Your task to perform on an android device: Clear the cart on walmart.com. Search for "asus rog" on walmart.com, select the first entry, and add it to the cart. Image 0: 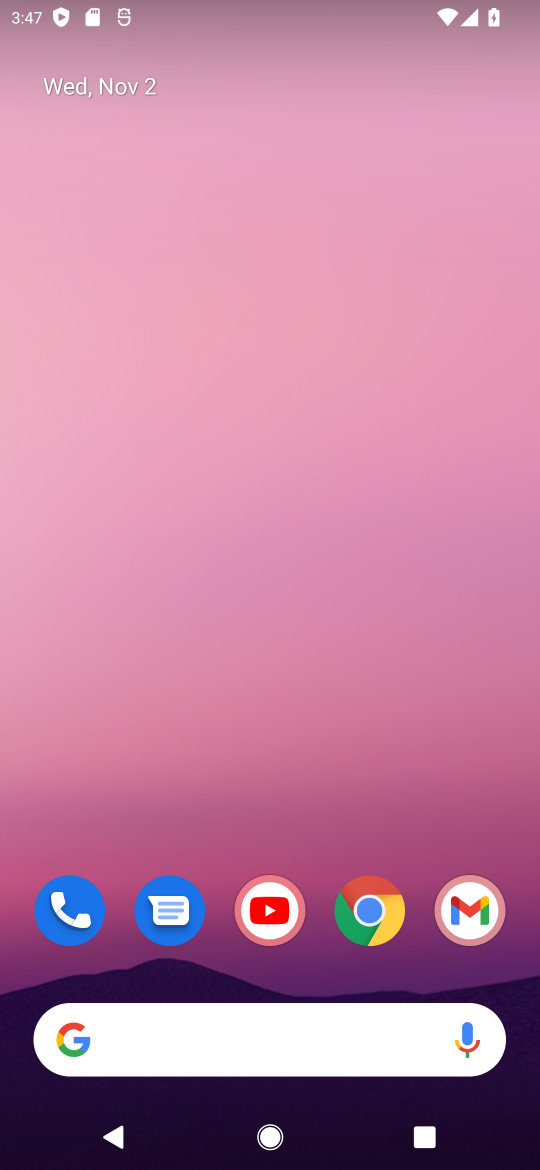
Step 0: click (361, 925)
Your task to perform on an android device: Clear the cart on walmart.com. Search for "asus rog" on walmart.com, select the first entry, and add it to the cart. Image 1: 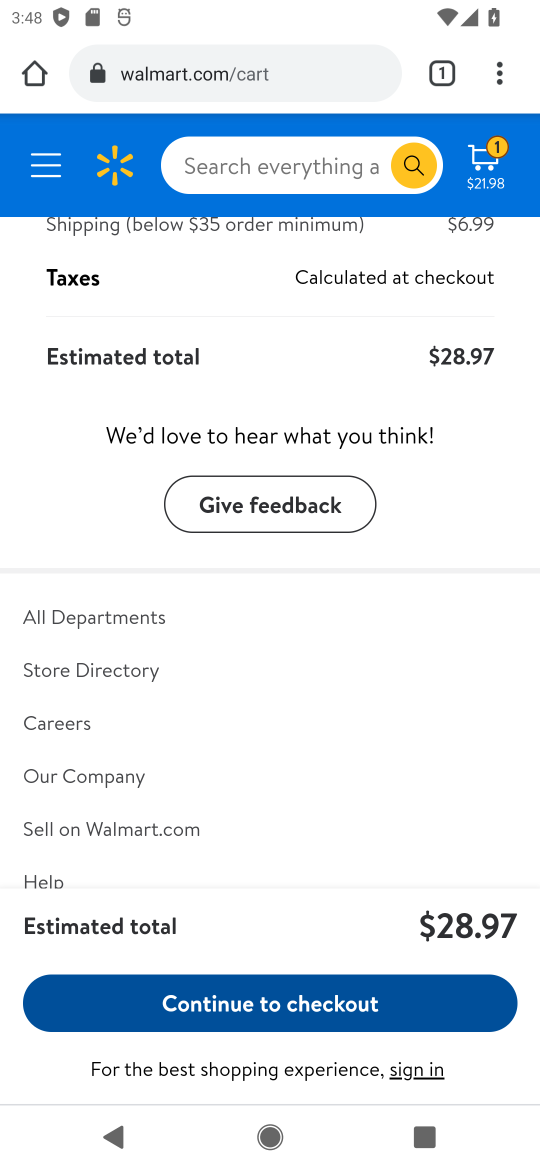
Step 1: click (312, 159)
Your task to perform on an android device: Clear the cart on walmart.com. Search for "asus rog" on walmart.com, select the first entry, and add it to the cart. Image 2: 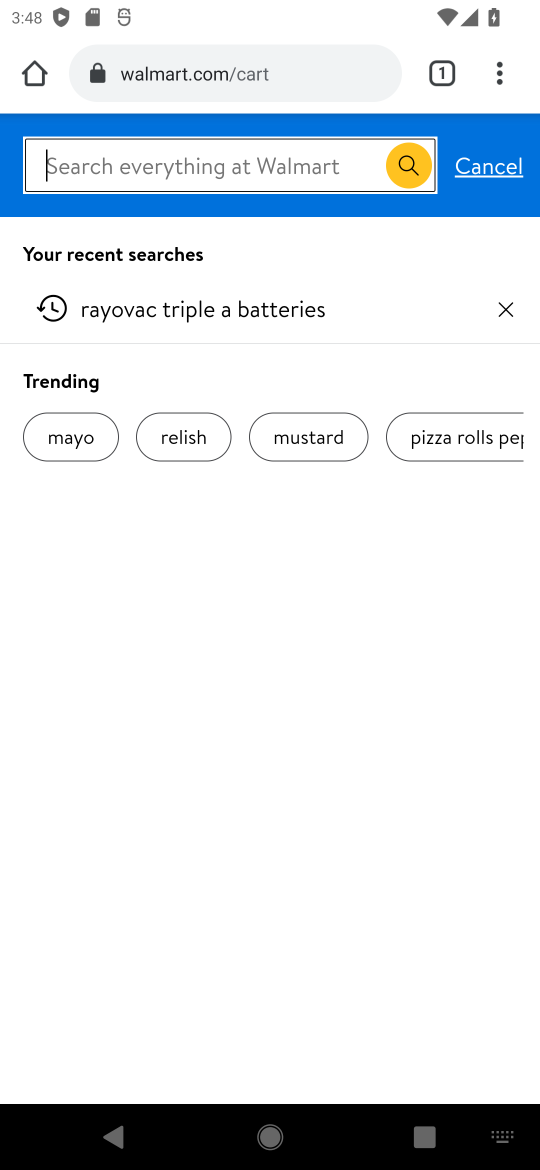
Step 2: type "asus rog"
Your task to perform on an android device: Clear the cart on walmart.com. Search for "asus rog" on walmart.com, select the first entry, and add it to the cart. Image 3: 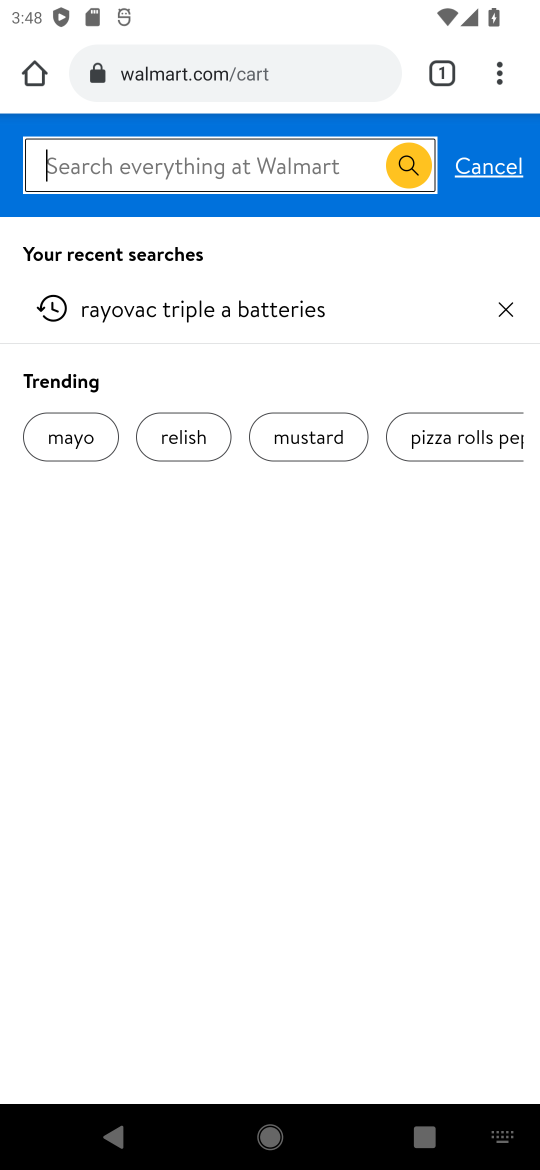
Step 3: type ""
Your task to perform on an android device: Clear the cart on walmart.com. Search for "asus rog" on walmart.com, select the first entry, and add it to the cart. Image 4: 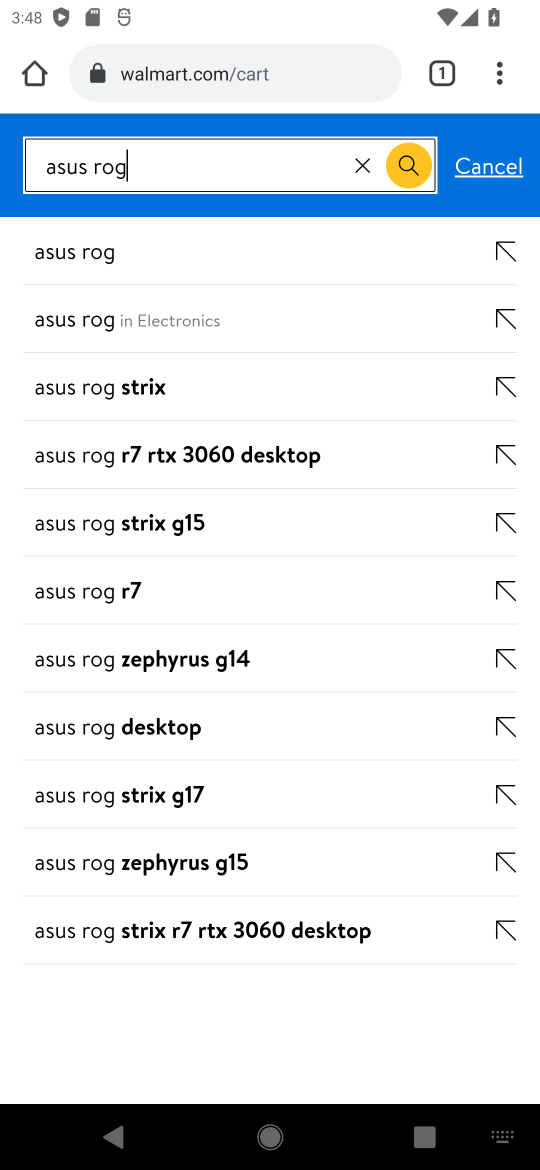
Step 4: click (105, 269)
Your task to perform on an android device: Clear the cart on walmart.com. Search for "asus rog" on walmart.com, select the first entry, and add it to the cart. Image 5: 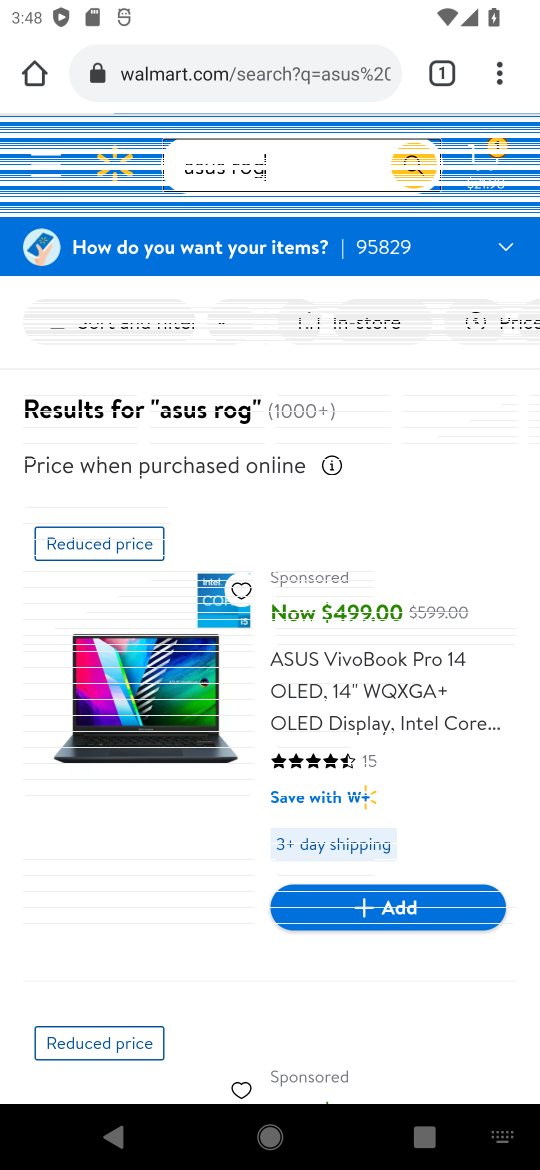
Step 5: click (409, 168)
Your task to perform on an android device: Clear the cart on walmart.com. Search for "asus rog" on walmart.com, select the first entry, and add it to the cart. Image 6: 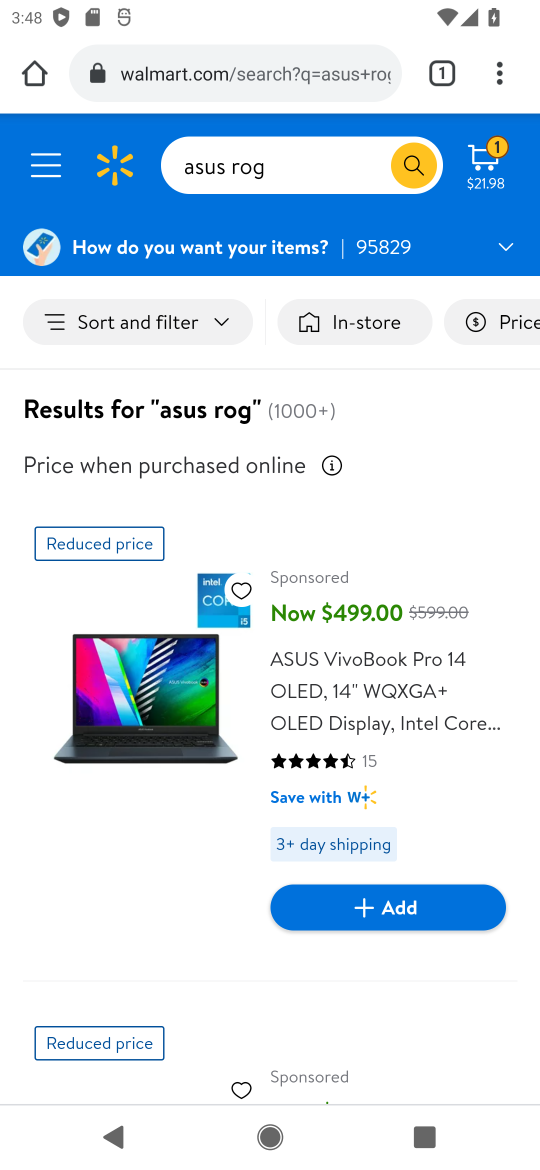
Step 6: click (342, 654)
Your task to perform on an android device: Clear the cart on walmart.com. Search for "asus rog" on walmart.com, select the first entry, and add it to the cart. Image 7: 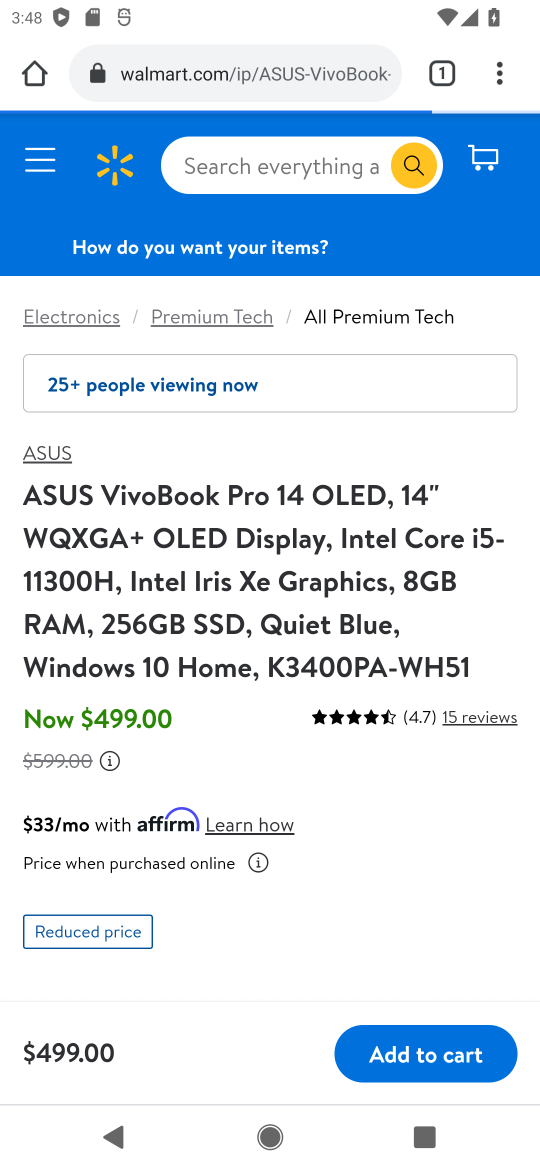
Step 7: click (425, 916)
Your task to perform on an android device: Clear the cart on walmart.com. Search for "asus rog" on walmart.com, select the first entry, and add it to the cart. Image 8: 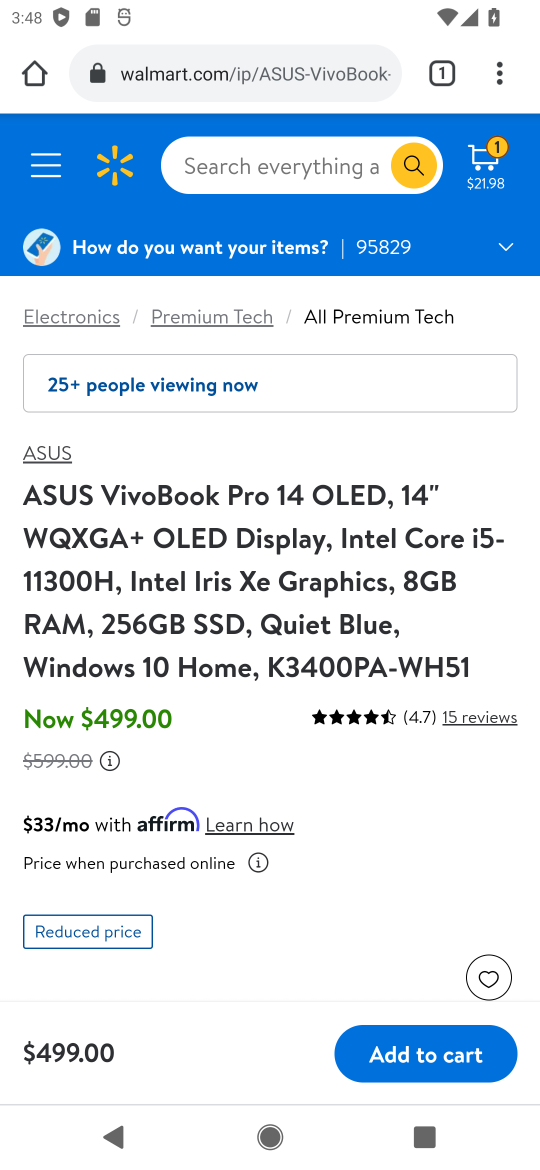
Step 8: drag from (415, 845) to (401, 446)
Your task to perform on an android device: Clear the cart on walmart.com. Search for "asus rog" on walmart.com, select the first entry, and add it to the cart. Image 9: 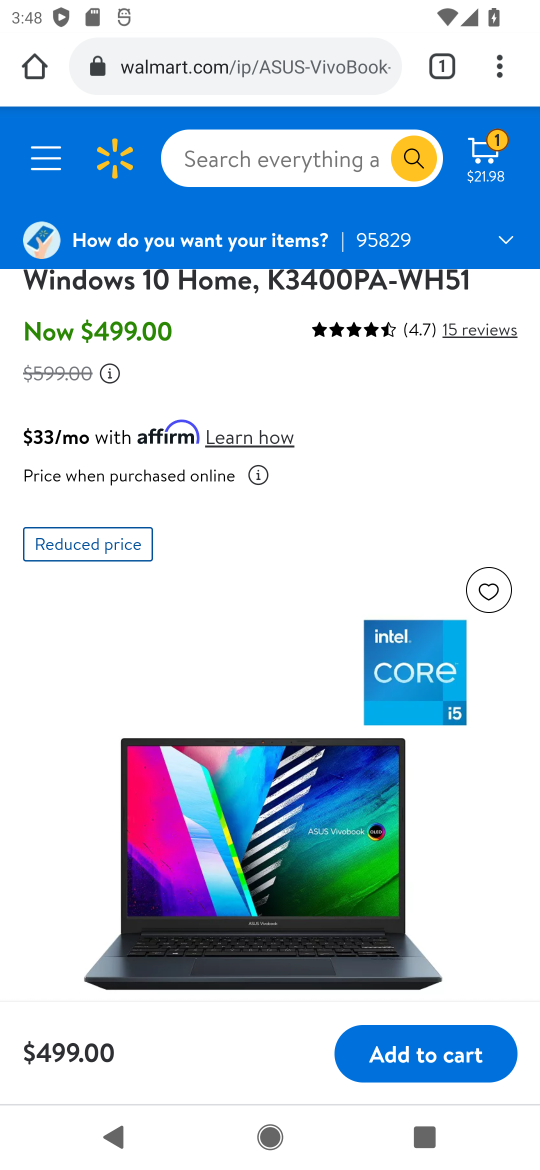
Step 9: drag from (299, 895) to (322, 541)
Your task to perform on an android device: Clear the cart on walmart.com. Search for "asus rog" on walmart.com, select the first entry, and add it to the cart. Image 10: 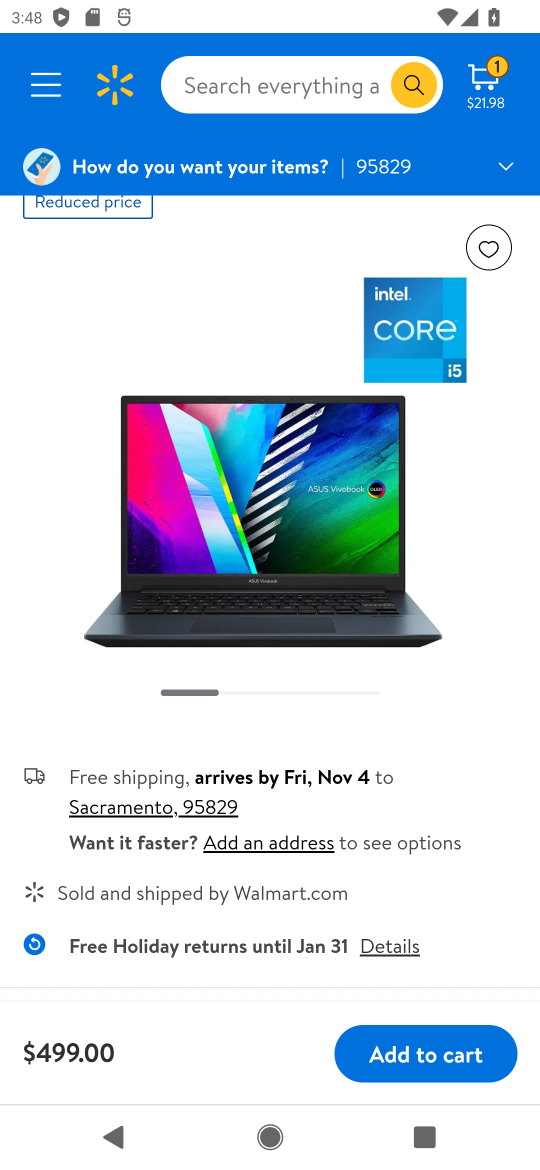
Step 10: drag from (383, 561) to (11, 564)
Your task to perform on an android device: Clear the cart on walmart.com. Search for "asus rog" on walmart.com, select the first entry, and add it to the cart. Image 11: 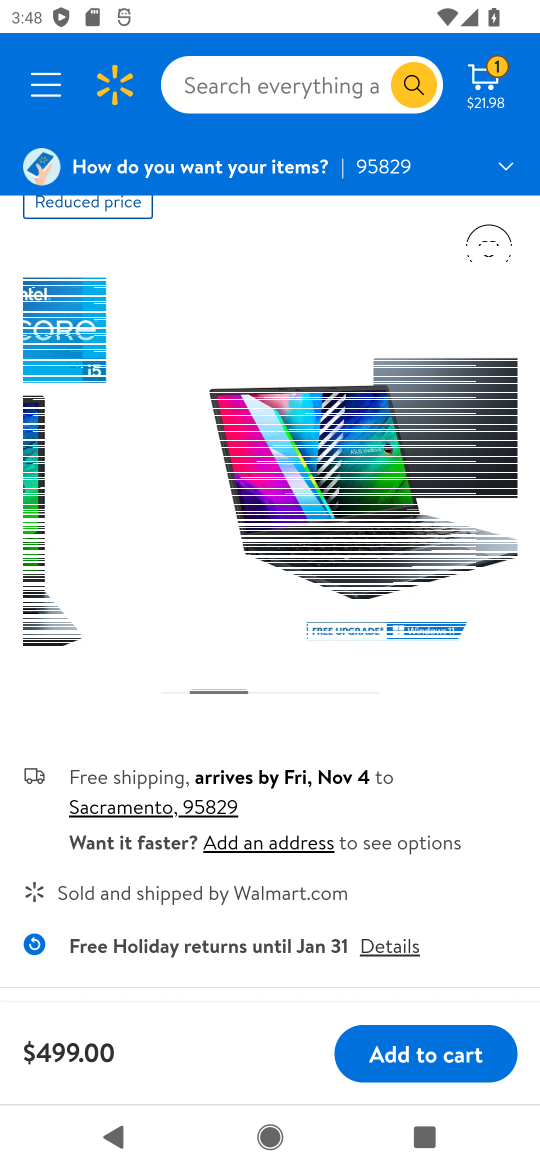
Step 11: drag from (383, 588) to (4, 605)
Your task to perform on an android device: Clear the cart on walmart.com. Search for "asus rog" on walmart.com, select the first entry, and add it to the cart. Image 12: 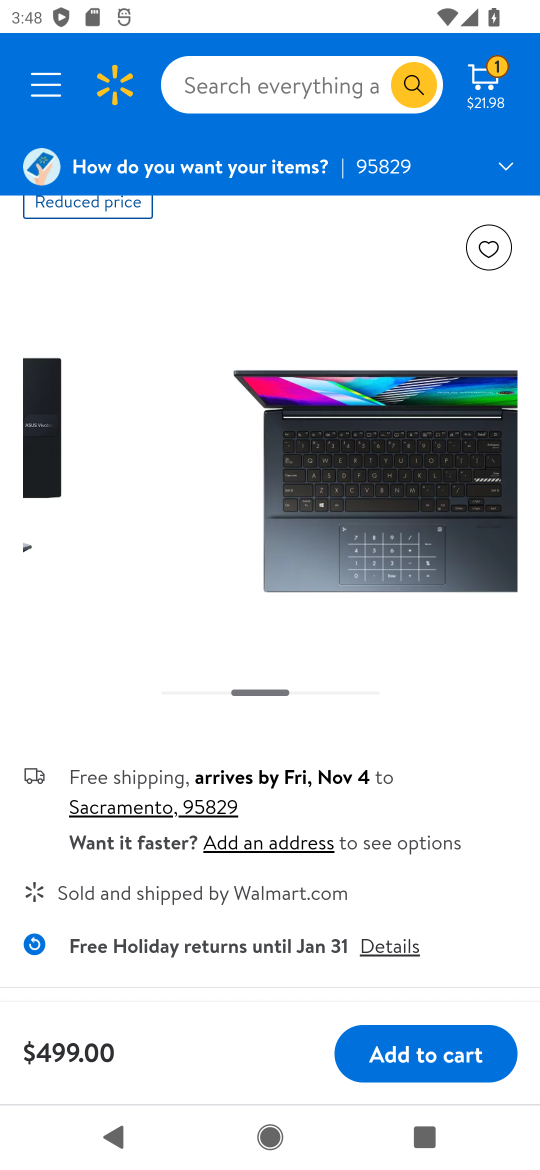
Step 12: drag from (490, 592) to (2, 618)
Your task to perform on an android device: Clear the cart on walmart.com. Search for "asus rog" on walmart.com, select the first entry, and add it to the cart. Image 13: 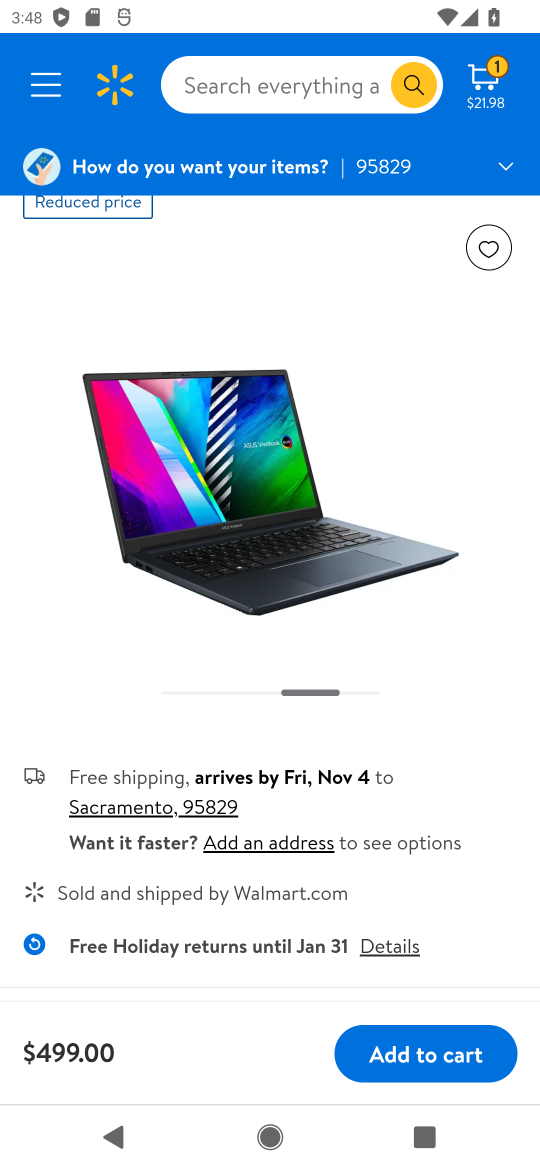
Step 13: click (448, 1057)
Your task to perform on an android device: Clear the cart on walmart.com. Search for "asus rog" on walmart.com, select the first entry, and add it to the cart. Image 14: 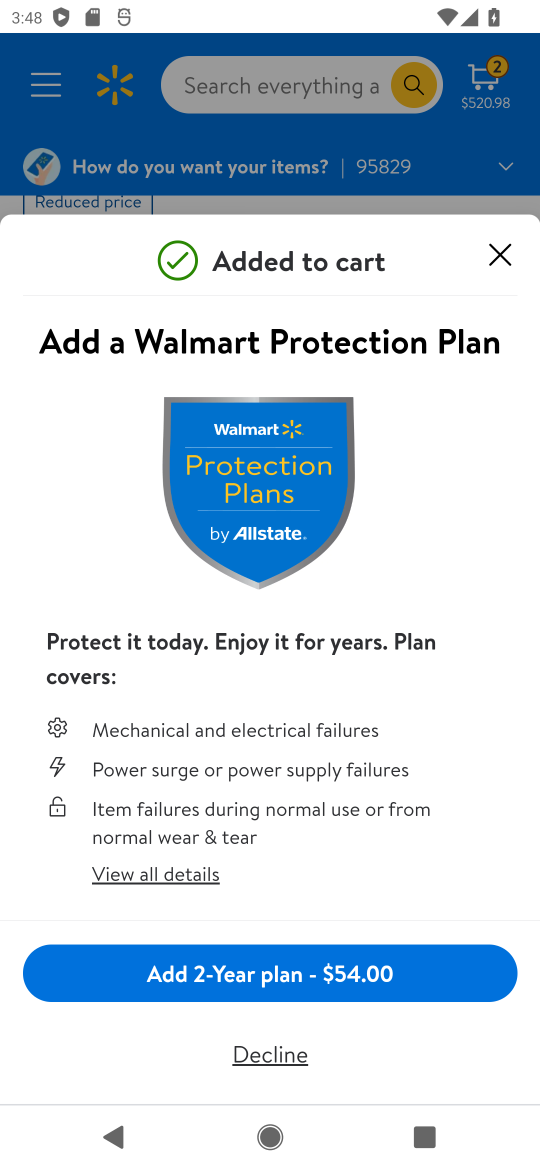
Step 14: drag from (435, 666) to (418, 553)
Your task to perform on an android device: Clear the cart on walmart.com. Search for "asus rog" on walmart.com, select the first entry, and add it to the cart. Image 15: 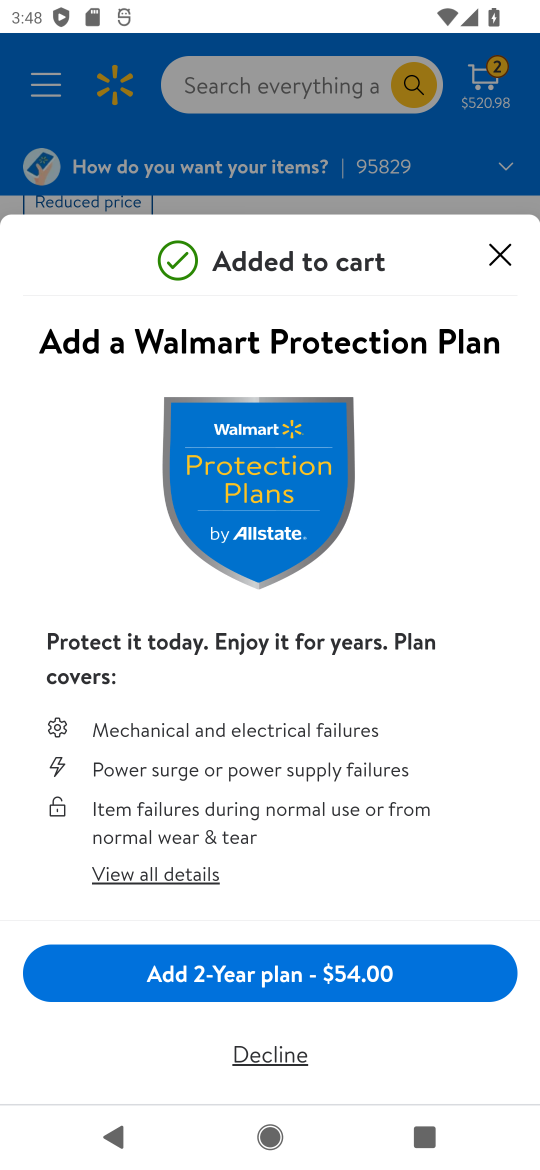
Step 15: click (505, 258)
Your task to perform on an android device: Clear the cart on walmart.com. Search for "asus rog" on walmart.com, select the first entry, and add it to the cart. Image 16: 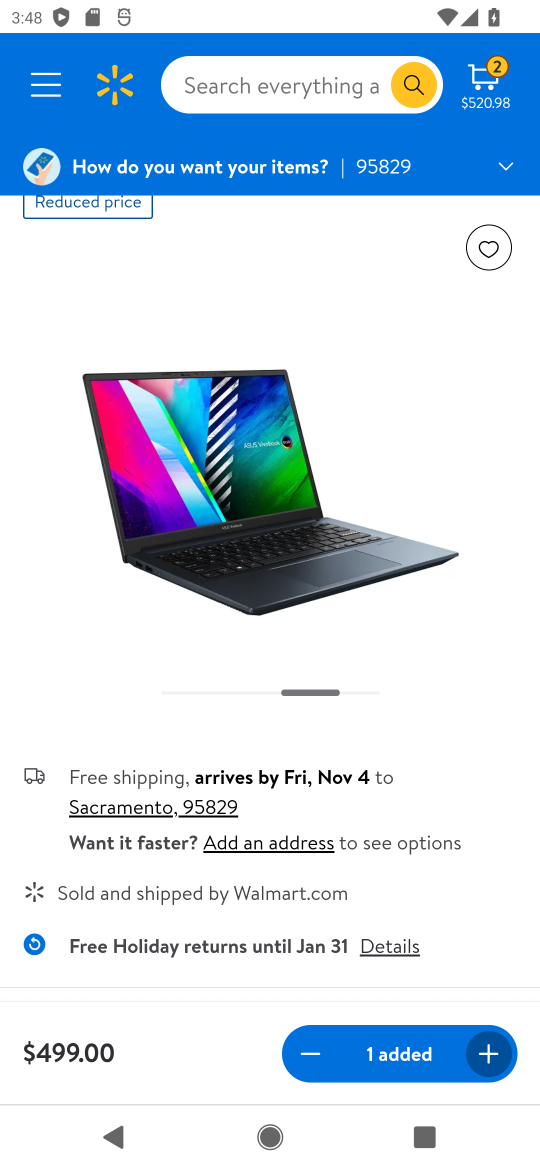
Step 16: drag from (368, 592) to (398, 358)
Your task to perform on an android device: Clear the cart on walmart.com. Search for "asus rog" on walmart.com, select the first entry, and add it to the cart. Image 17: 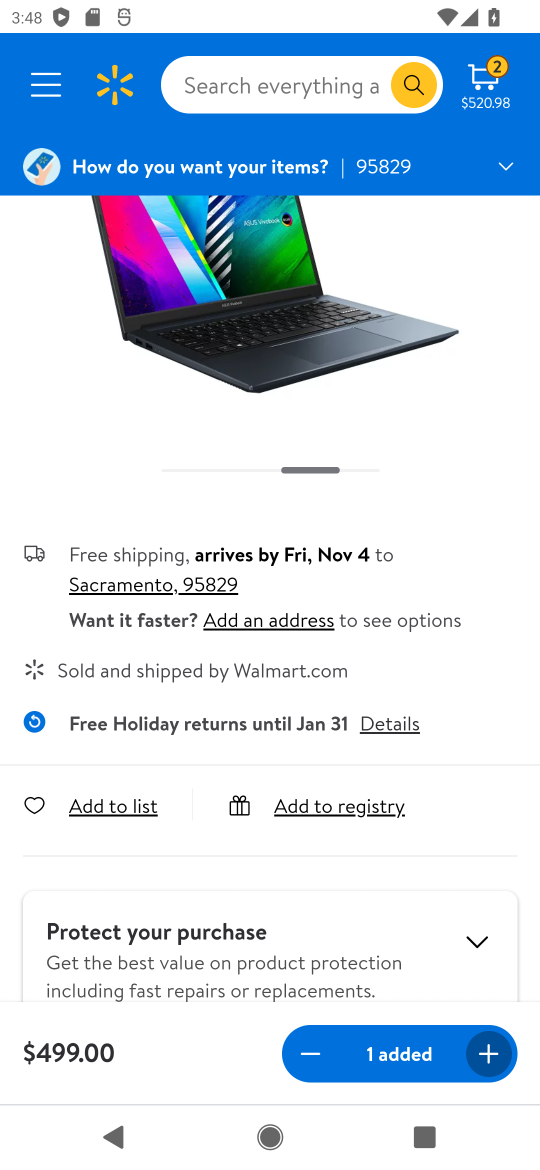
Step 17: drag from (304, 884) to (350, 371)
Your task to perform on an android device: Clear the cart on walmart.com. Search for "asus rog" on walmart.com, select the first entry, and add it to the cart. Image 18: 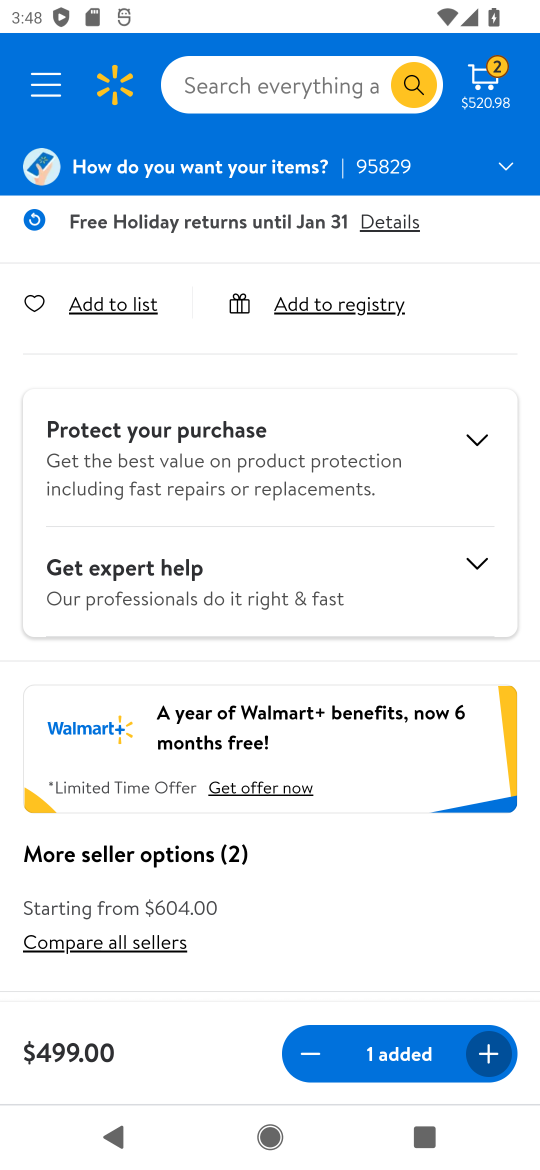
Step 18: drag from (359, 829) to (336, 1076)
Your task to perform on an android device: Clear the cart on walmart.com. Search for "asus rog" on walmart.com, select the first entry, and add it to the cart. Image 19: 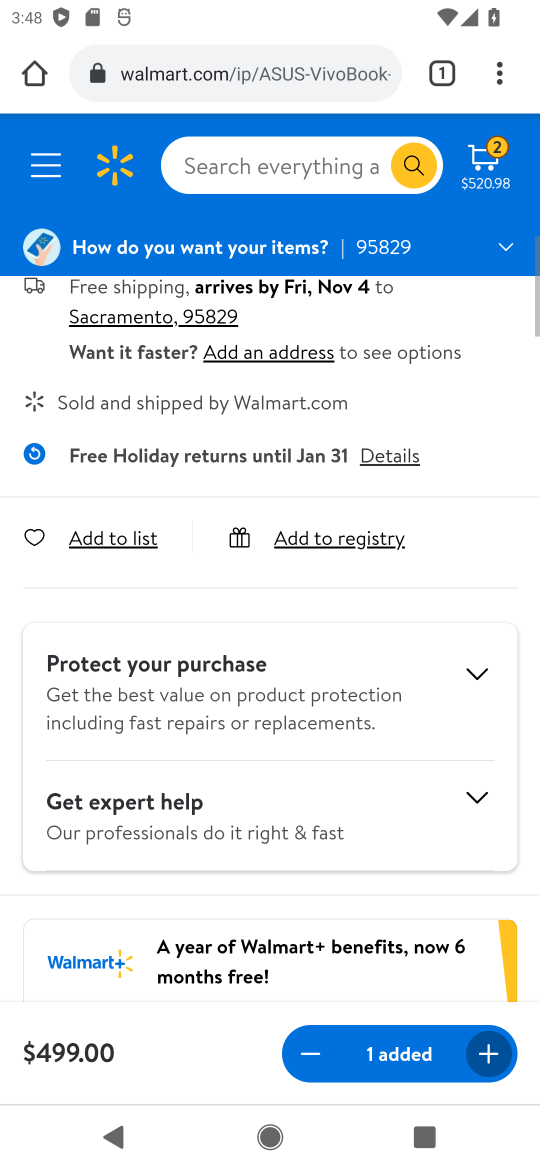
Step 19: drag from (354, 590) to (329, 1028)
Your task to perform on an android device: Clear the cart on walmart.com. Search for "asus rog" on walmart.com, select the first entry, and add it to the cart. Image 20: 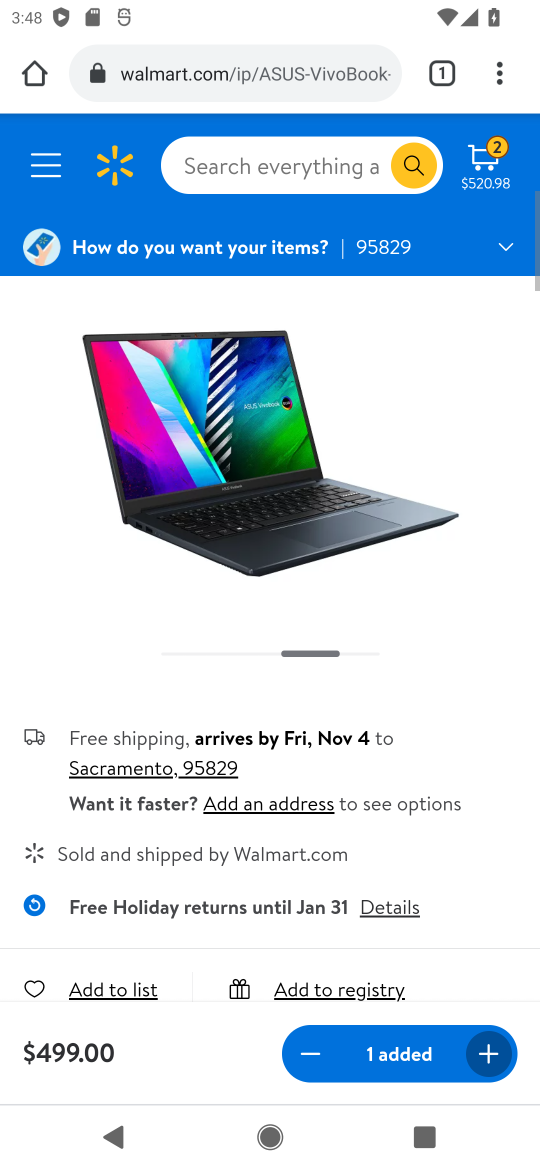
Step 20: drag from (376, 526) to (387, 932)
Your task to perform on an android device: Clear the cart on walmart.com. Search for "asus rog" on walmart.com, select the first entry, and add it to the cart. Image 21: 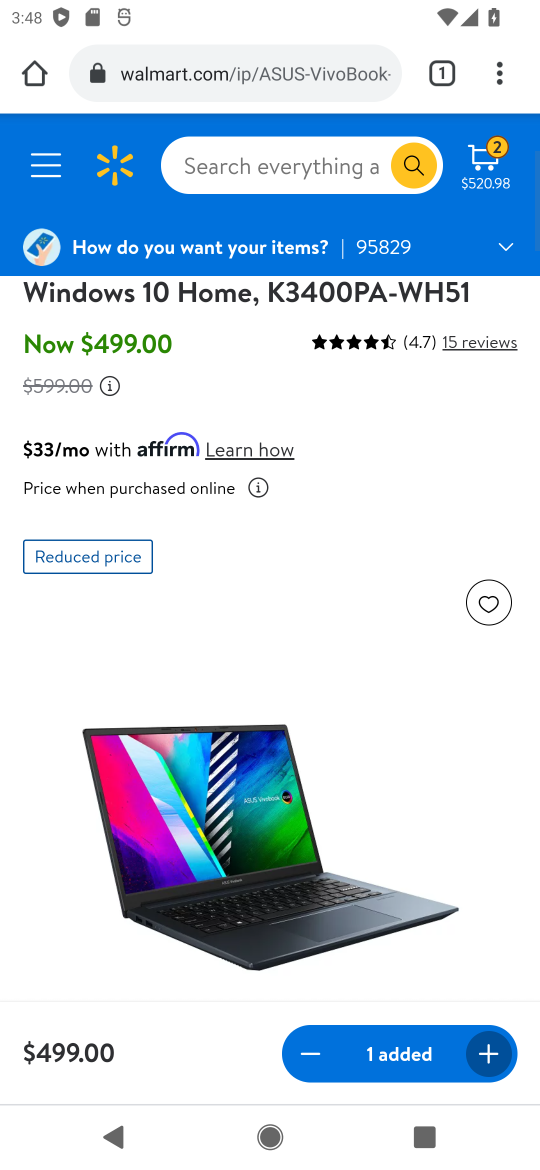
Step 21: drag from (319, 730) to (329, 886)
Your task to perform on an android device: Clear the cart on walmart.com. Search for "asus rog" on walmart.com, select the first entry, and add it to the cart. Image 22: 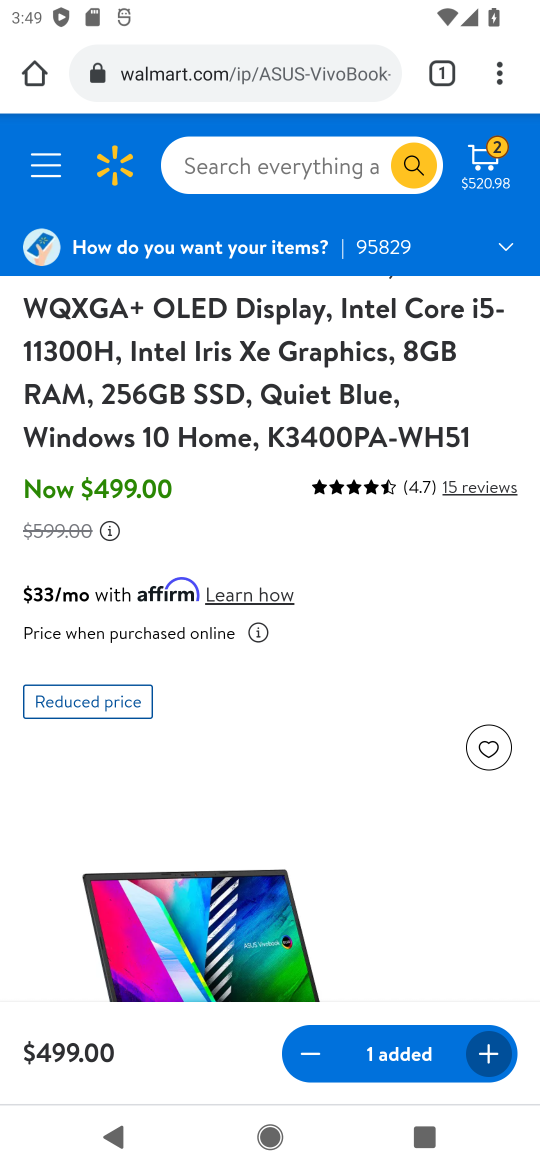
Step 22: click (502, 163)
Your task to perform on an android device: Clear the cart on walmart.com. Search for "asus rog" on walmart.com, select the first entry, and add it to the cart. Image 23: 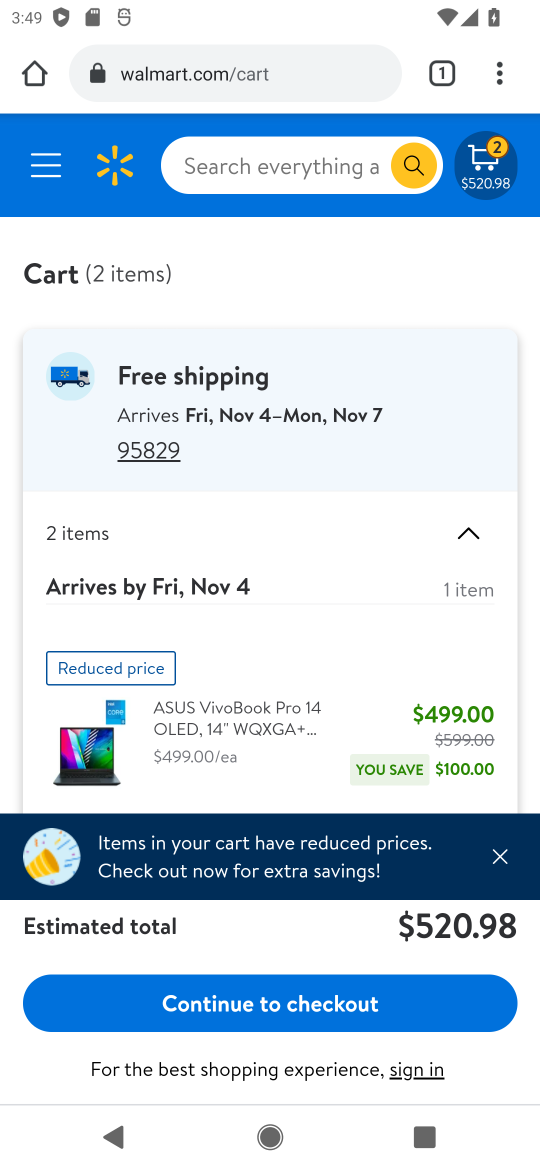
Step 23: drag from (433, 542) to (465, 256)
Your task to perform on an android device: Clear the cart on walmart.com. Search for "asus rog" on walmart.com, select the first entry, and add it to the cart. Image 24: 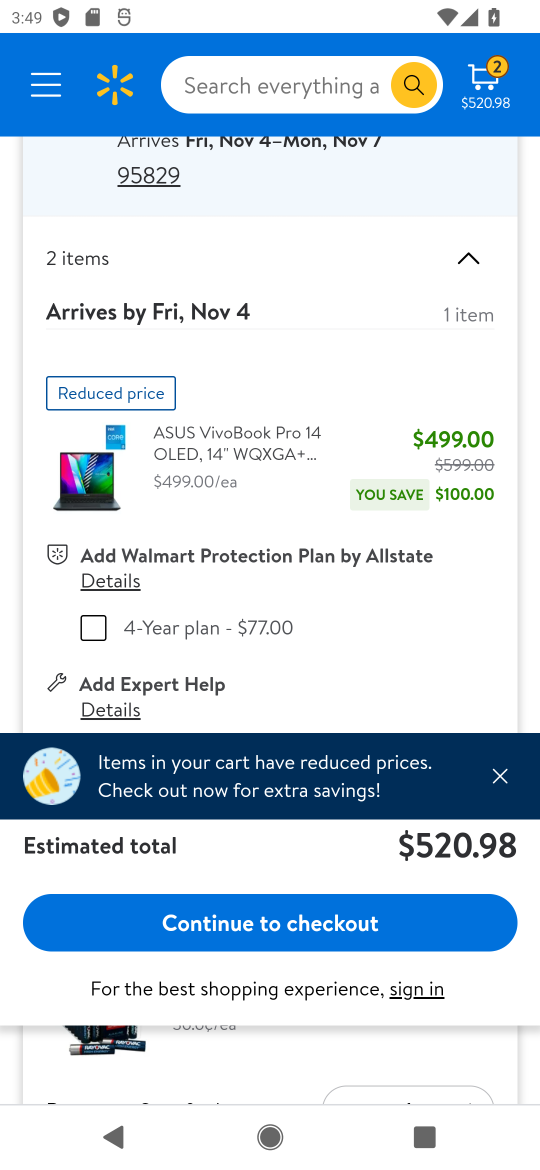
Step 24: drag from (402, 630) to (421, 279)
Your task to perform on an android device: Clear the cart on walmart.com. Search for "asus rog" on walmart.com, select the first entry, and add it to the cart. Image 25: 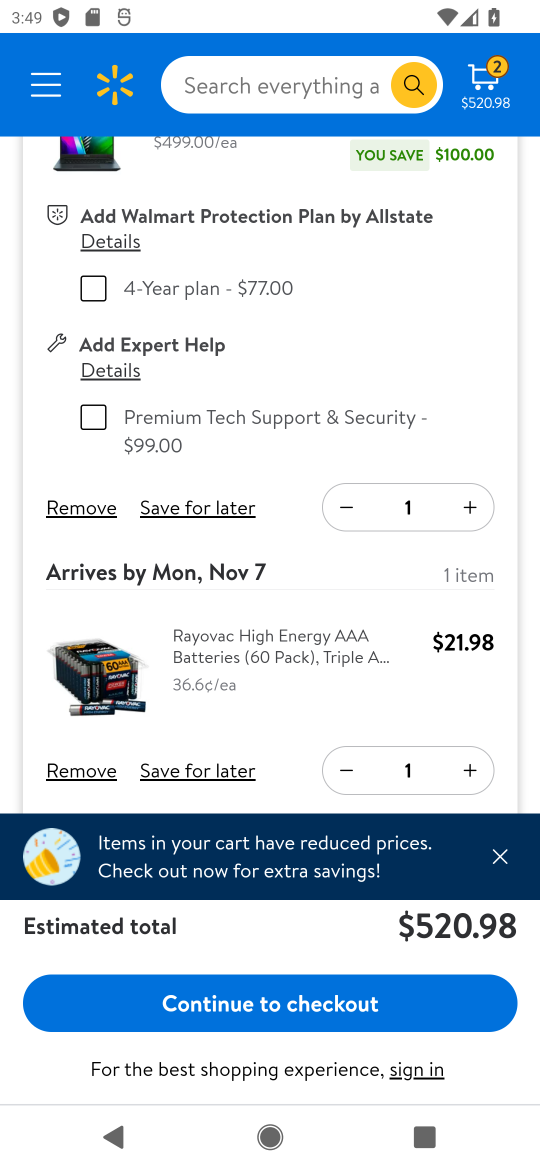
Step 25: click (93, 769)
Your task to perform on an android device: Clear the cart on walmart.com. Search for "asus rog" on walmart.com, select the first entry, and add it to the cart. Image 26: 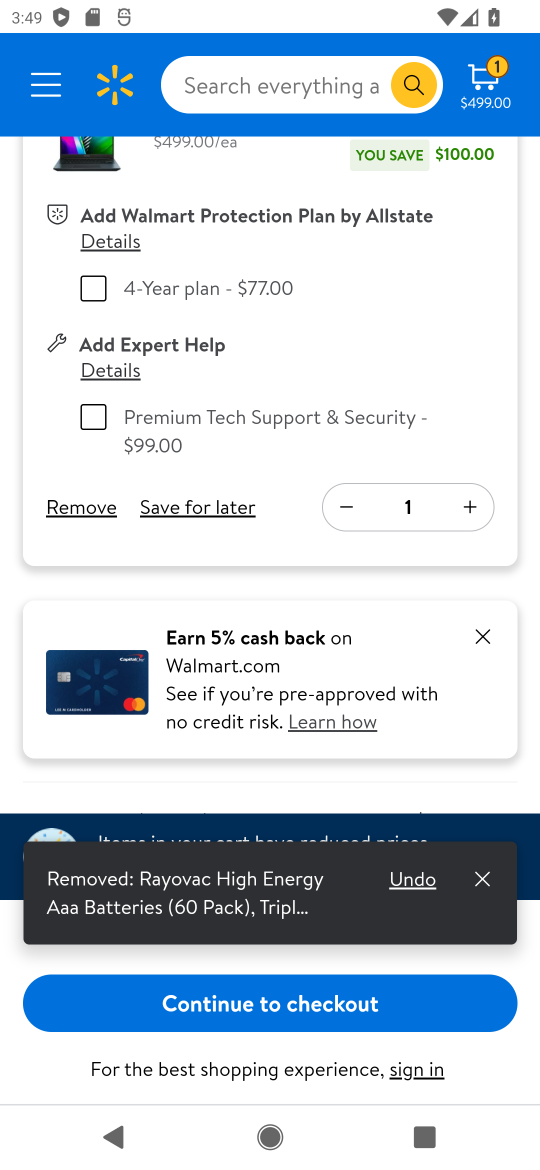
Step 26: click (479, 629)
Your task to perform on an android device: Clear the cart on walmart.com. Search for "asus rog" on walmart.com, select the first entry, and add it to the cart. Image 27: 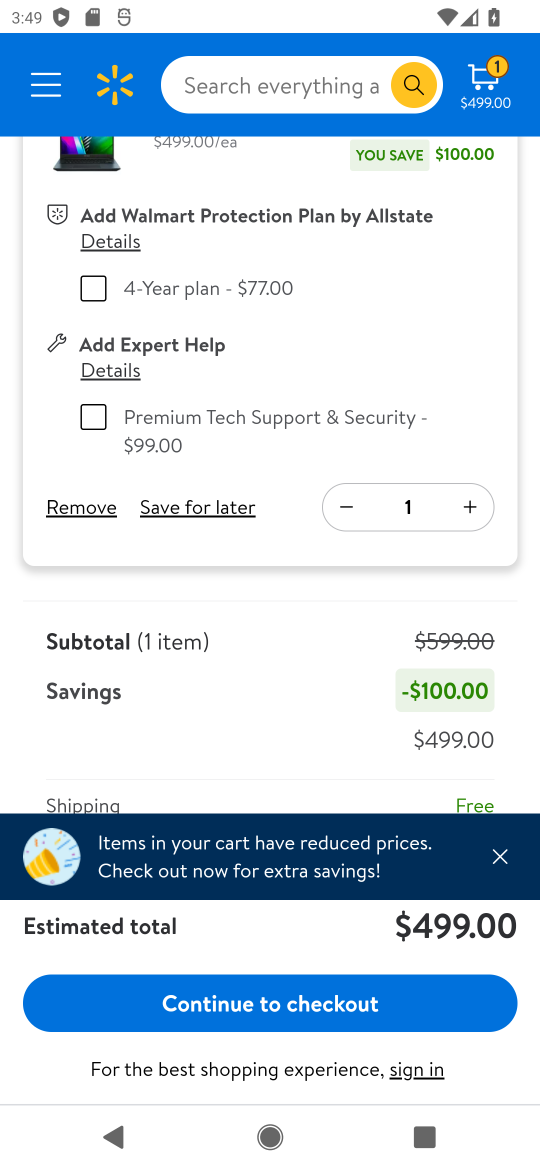
Step 27: click (413, 993)
Your task to perform on an android device: Clear the cart on walmart.com. Search for "asus rog" on walmart.com, select the first entry, and add it to the cart. Image 28: 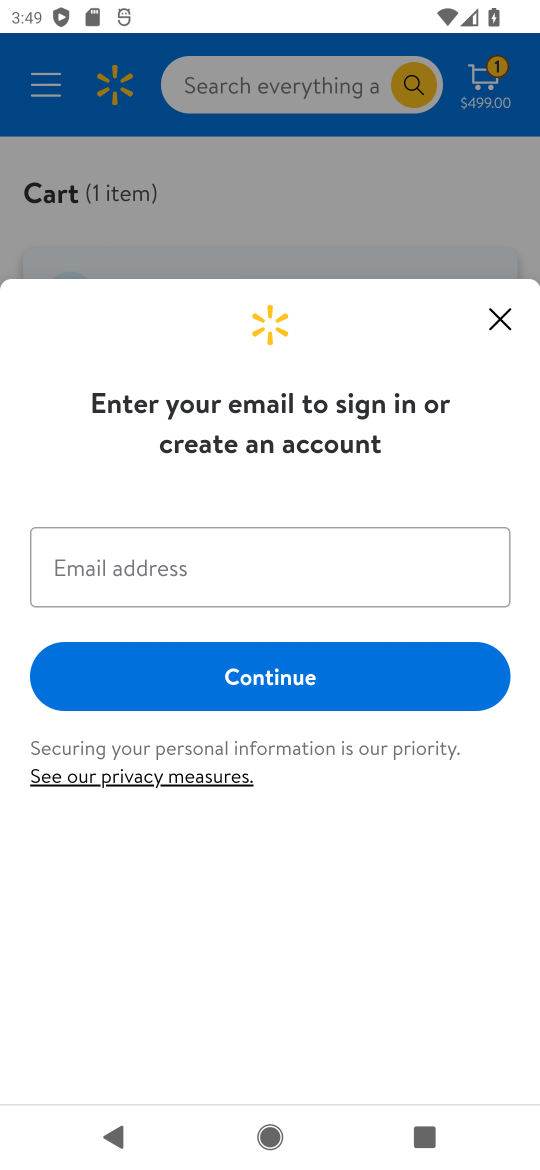
Step 28: click (491, 337)
Your task to perform on an android device: Clear the cart on walmart.com. Search for "asus rog" on walmart.com, select the first entry, and add it to the cart. Image 29: 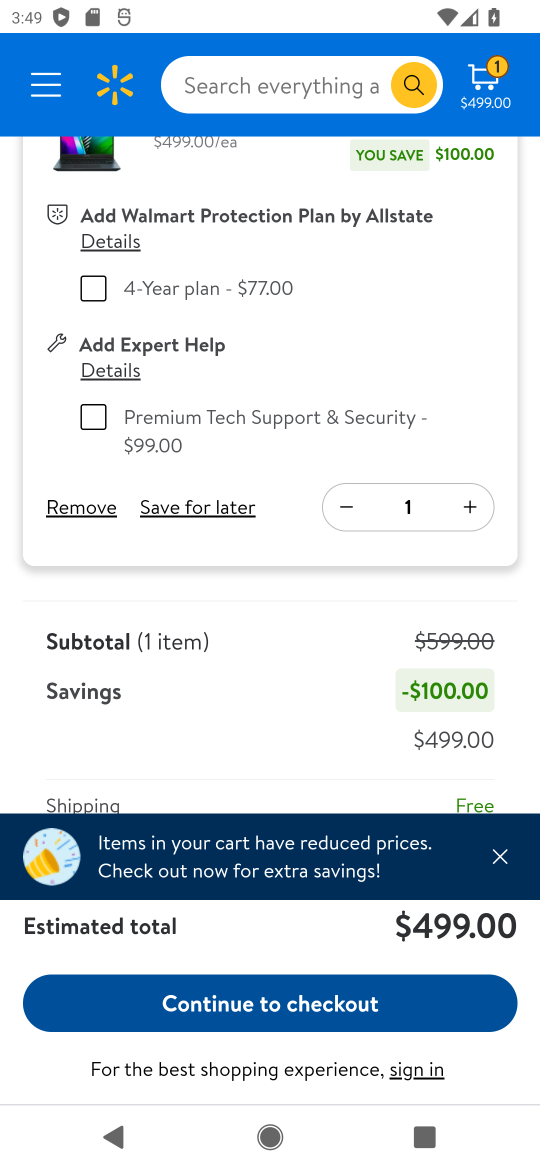
Step 29: drag from (469, 359) to (404, 471)
Your task to perform on an android device: Clear the cart on walmart.com. Search for "asus rog" on walmart.com, select the first entry, and add it to the cart. Image 30: 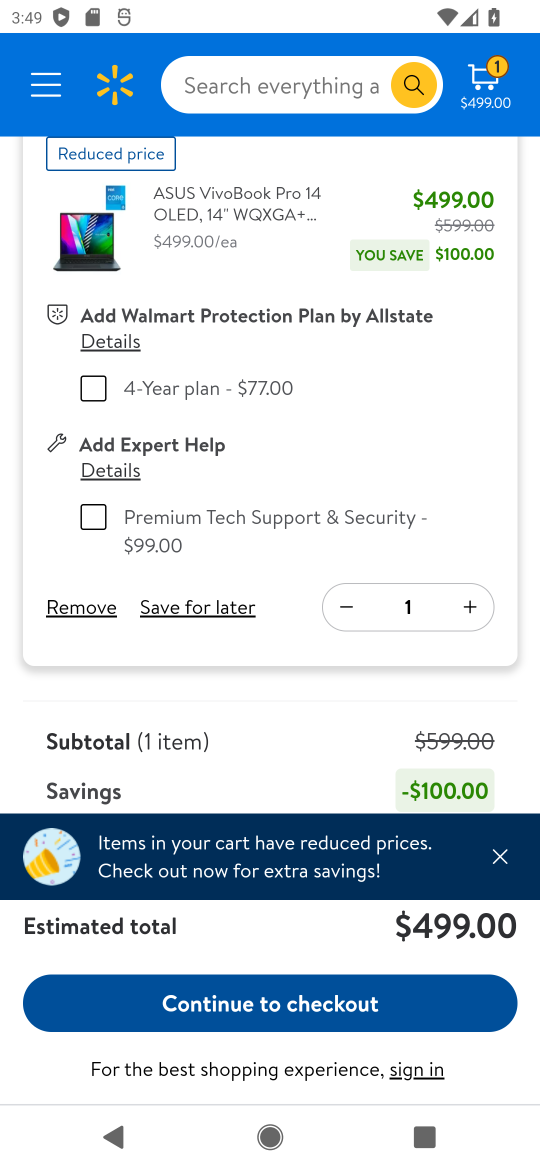
Step 30: click (266, 1013)
Your task to perform on an android device: Clear the cart on walmart.com. Search for "asus rog" on walmart.com, select the first entry, and add it to the cart. Image 31: 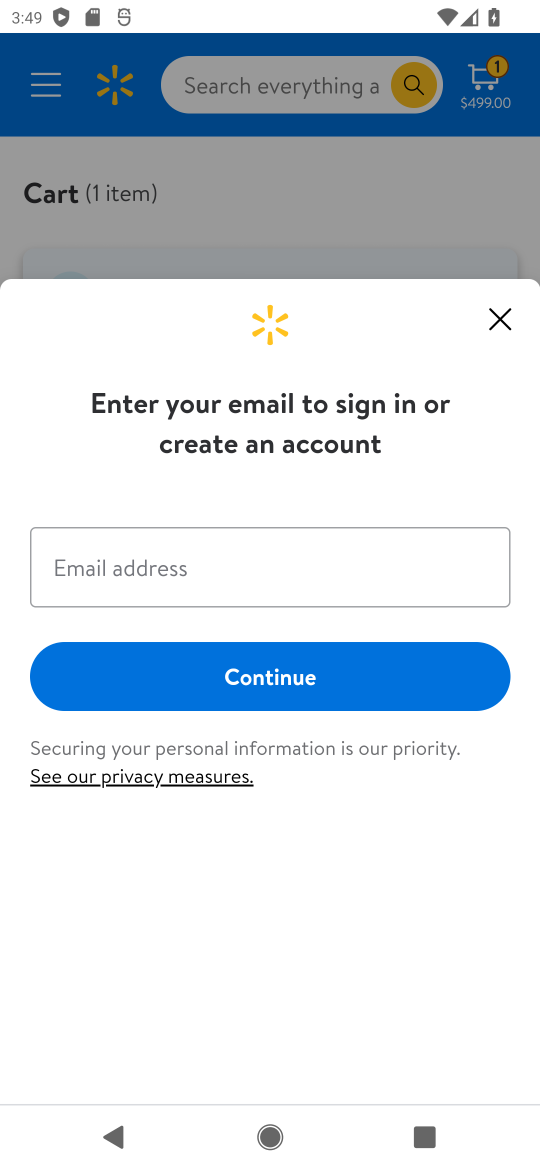
Step 31: click (513, 314)
Your task to perform on an android device: Clear the cart on walmart.com. Search for "asus rog" on walmart.com, select the first entry, and add it to the cart. Image 32: 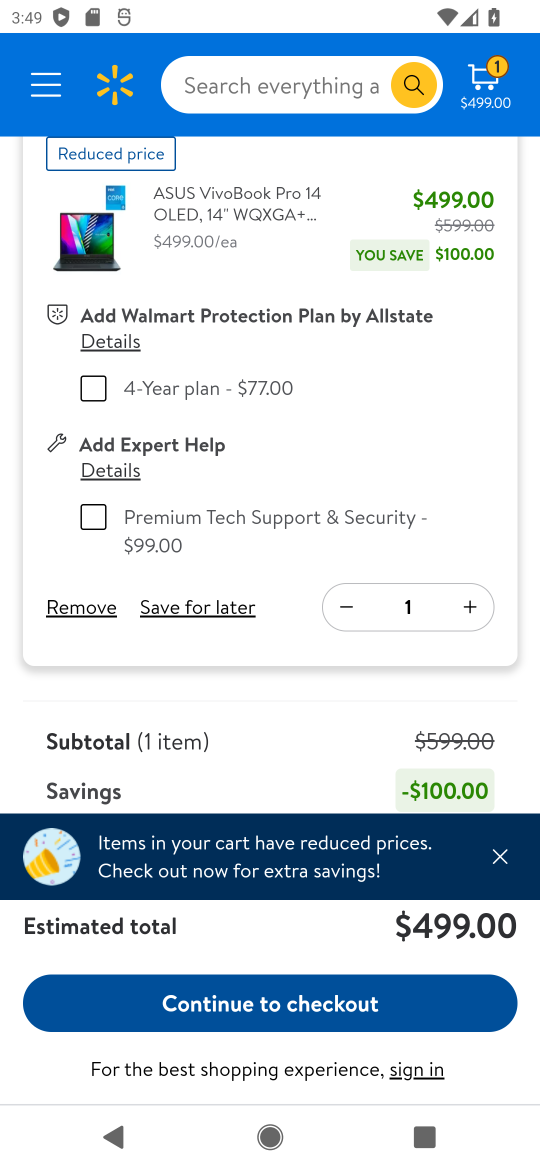
Step 32: task complete